Your task to perform on an android device: Is it going to rain tomorrow? Image 0: 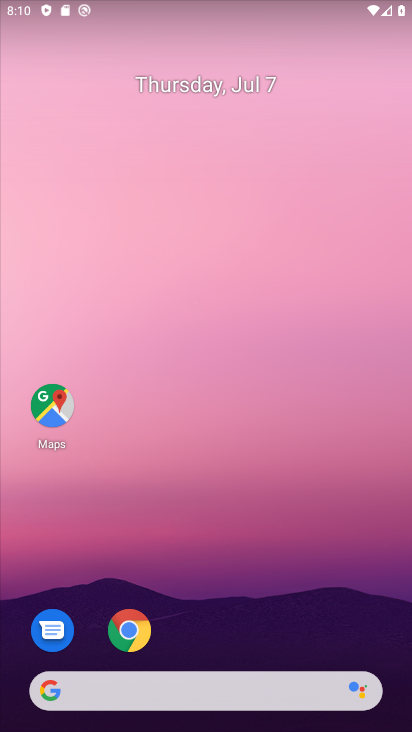
Step 0: drag from (217, 606) to (217, 228)
Your task to perform on an android device: Is it going to rain tomorrow? Image 1: 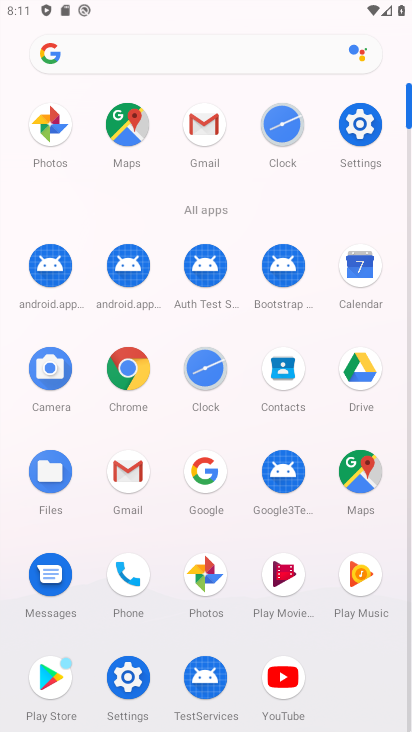
Step 1: click (196, 472)
Your task to perform on an android device: Is it going to rain tomorrow? Image 2: 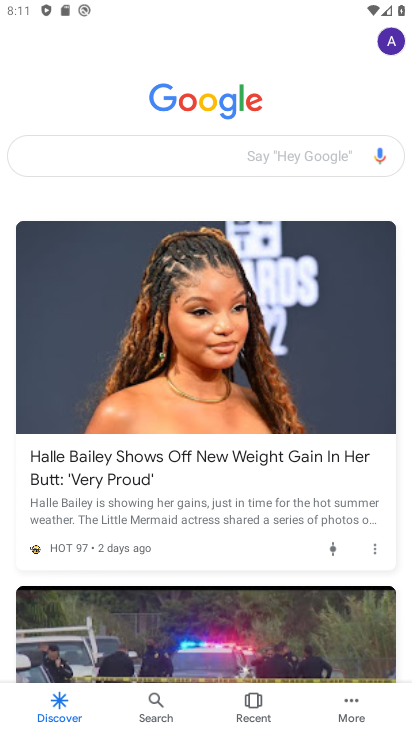
Step 2: click (172, 161)
Your task to perform on an android device: Is it going to rain tomorrow? Image 3: 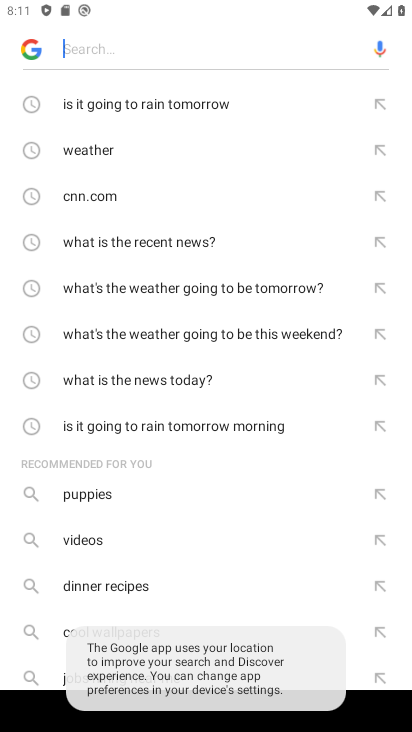
Step 3: click (123, 149)
Your task to perform on an android device: Is it going to rain tomorrow? Image 4: 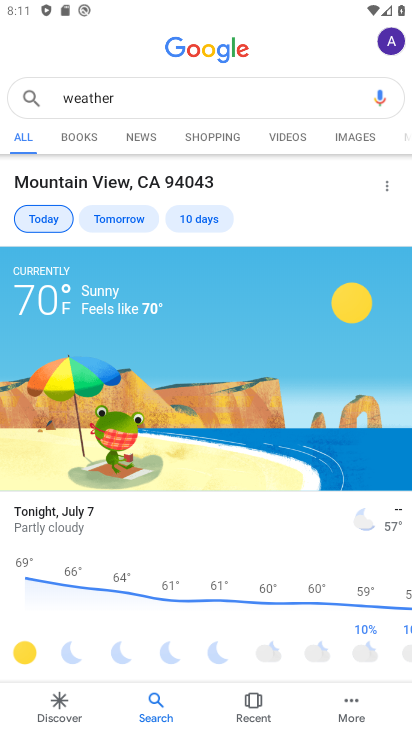
Step 4: click (102, 219)
Your task to perform on an android device: Is it going to rain tomorrow? Image 5: 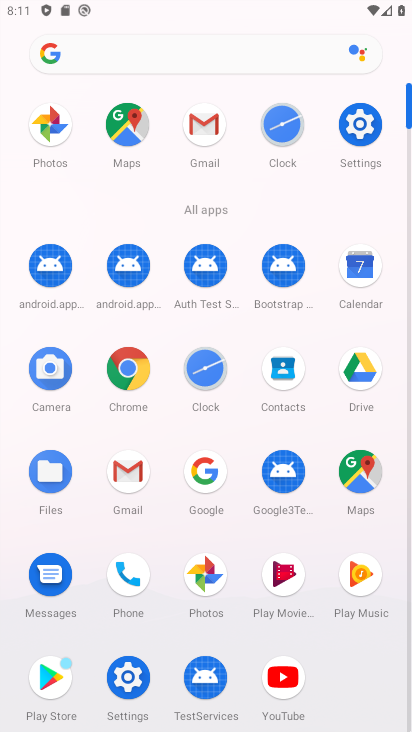
Step 5: click (215, 464)
Your task to perform on an android device: Is it going to rain tomorrow? Image 6: 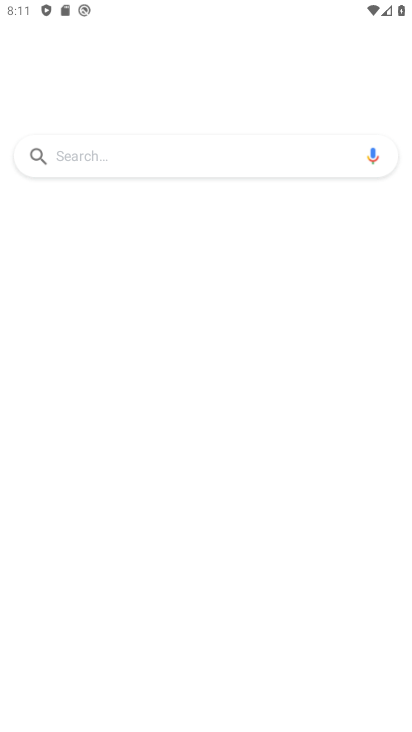
Step 6: click (175, 155)
Your task to perform on an android device: Is it going to rain tomorrow? Image 7: 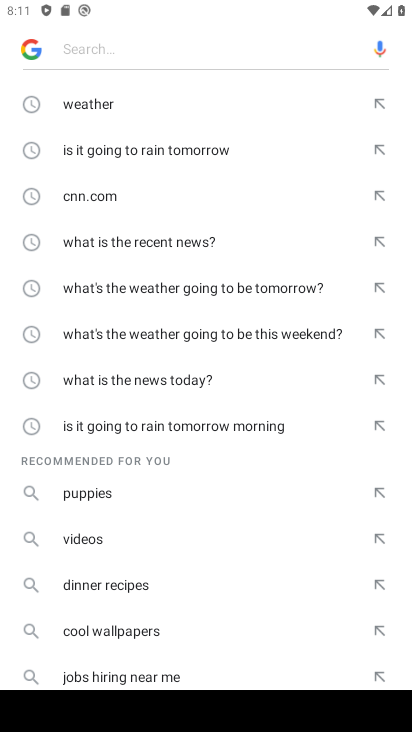
Step 7: click (101, 109)
Your task to perform on an android device: Is it going to rain tomorrow? Image 8: 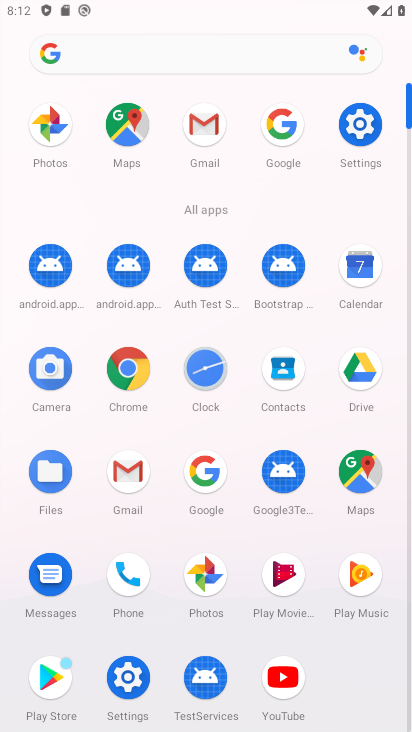
Step 8: click (207, 461)
Your task to perform on an android device: Is it going to rain tomorrow? Image 9: 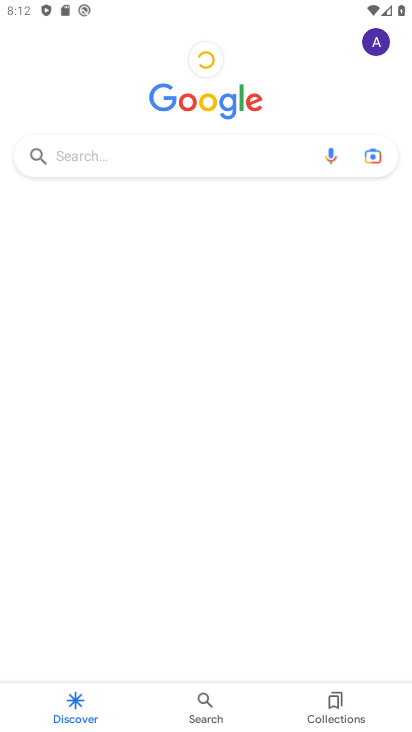
Step 9: click (128, 161)
Your task to perform on an android device: Is it going to rain tomorrow? Image 10: 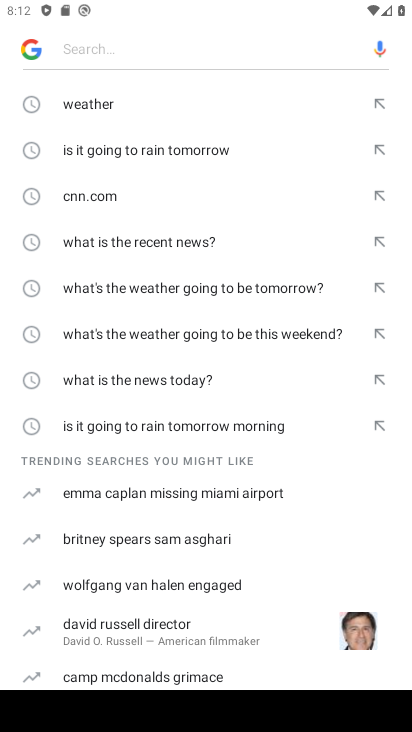
Step 10: click (100, 99)
Your task to perform on an android device: Is it going to rain tomorrow? Image 11: 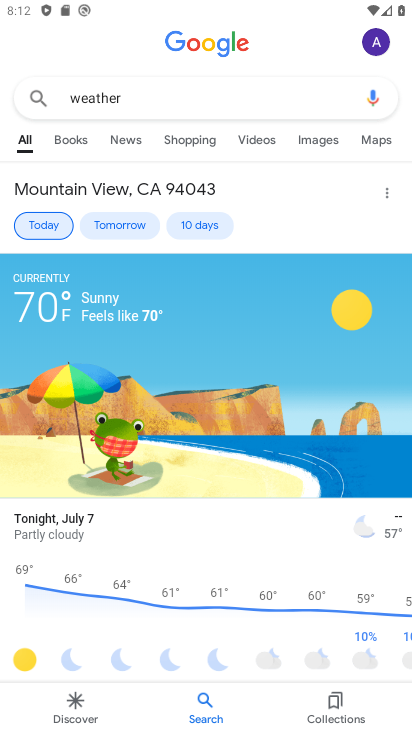
Step 11: click (109, 228)
Your task to perform on an android device: Is it going to rain tomorrow? Image 12: 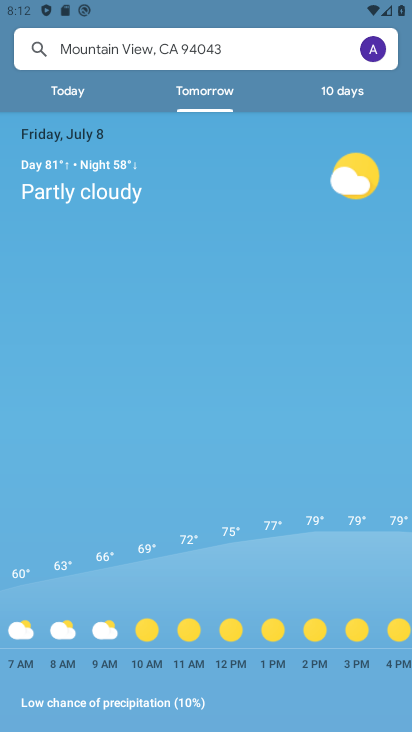
Step 12: task complete